Your task to perform on an android device: Open the calculator Image 0: 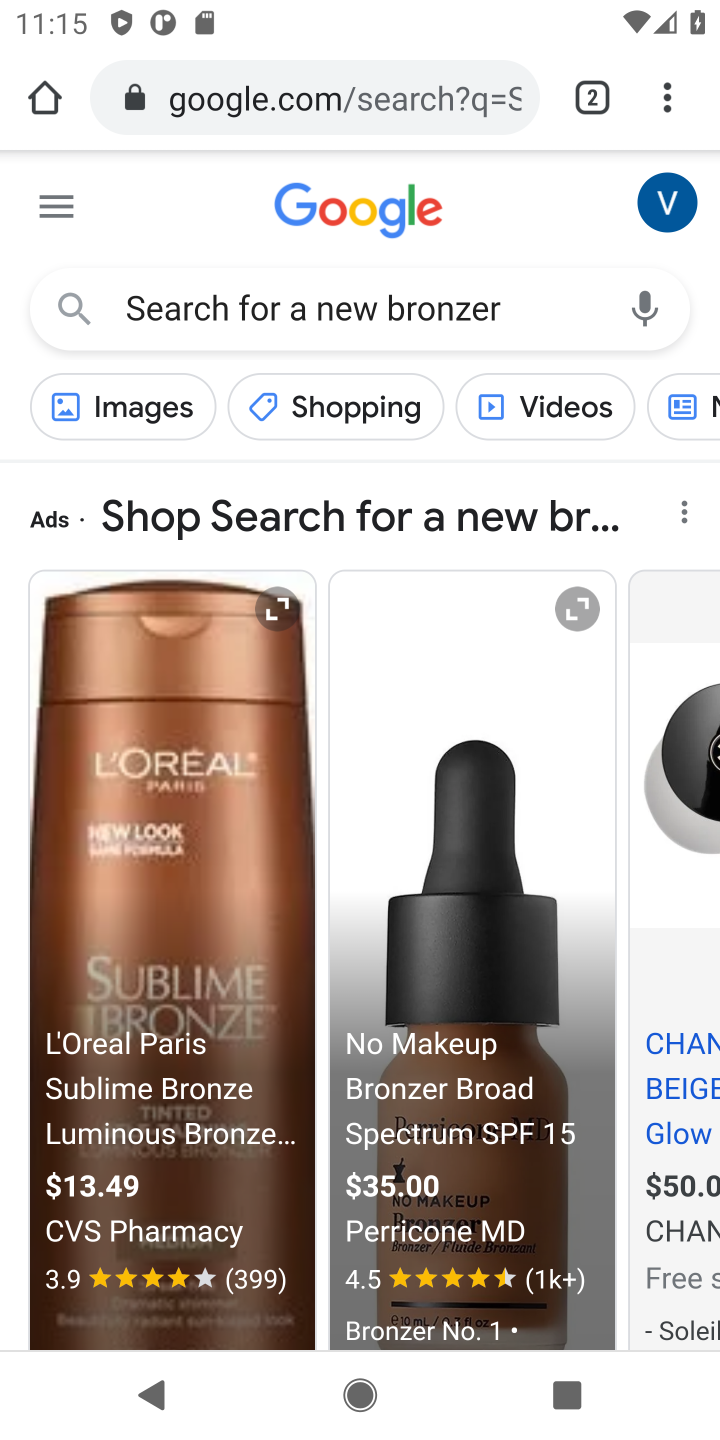
Step 0: task complete